Your task to perform on an android device: toggle sleep mode Image 0: 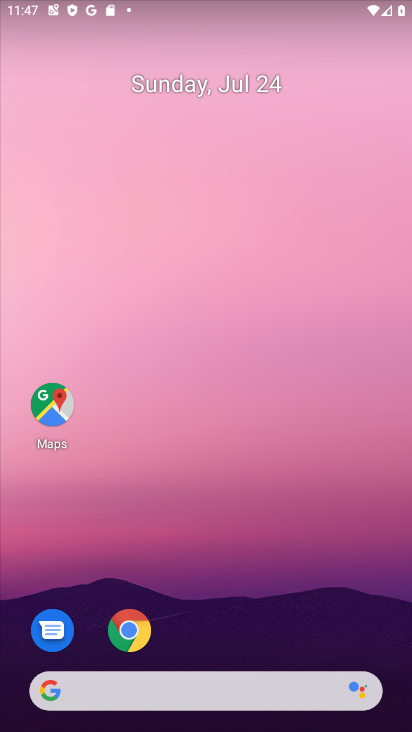
Step 0: drag from (250, 643) to (229, 118)
Your task to perform on an android device: toggle sleep mode Image 1: 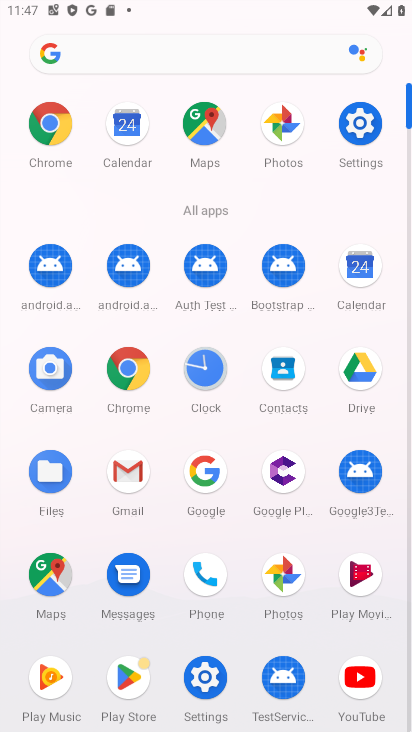
Step 1: drag from (179, 619) to (197, 113)
Your task to perform on an android device: toggle sleep mode Image 2: 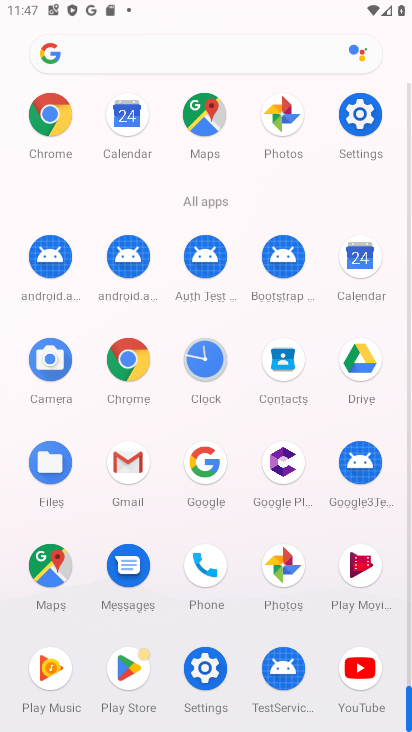
Step 2: click (215, 665)
Your task to perform on an android device: toggle sleep mode Image 3: 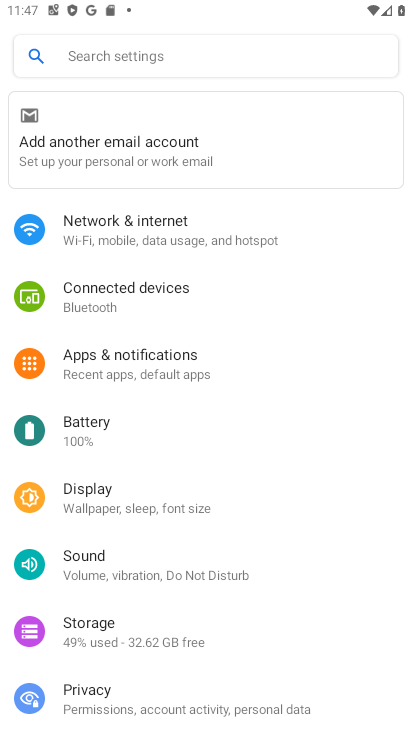
Step 3: click (103, 508)
Your task to perform on an android device: toggle sleep mode Image 4: 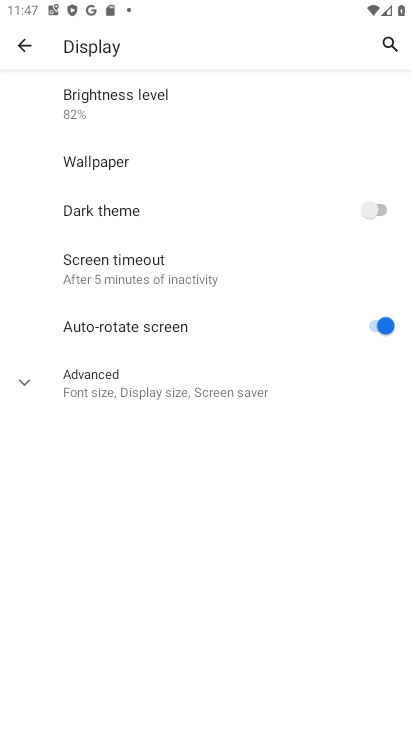
Step 4: click (102, 270)
Your task to perform on an android device: toggle sleep mode Image 5: 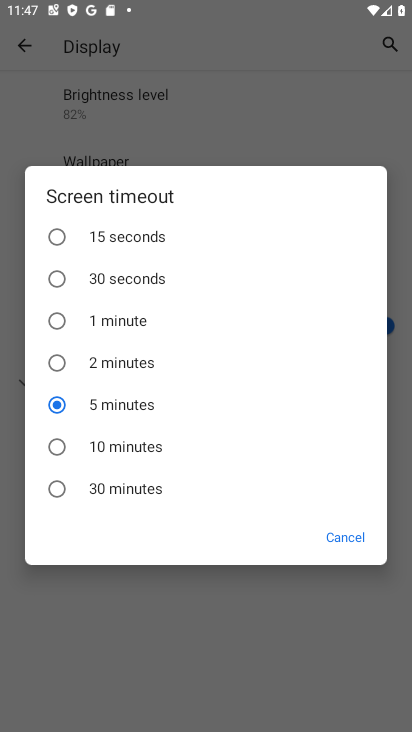
Step 5: click (115, 351)
Your task to perform on an android device: toggle sleep mode Image 6: 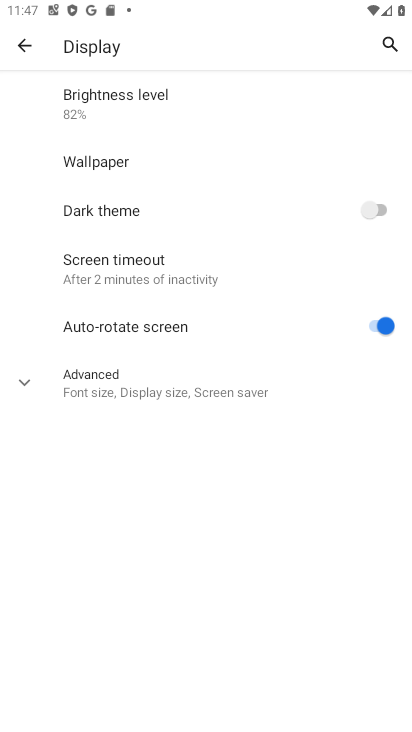
Step 6: task complete